Your task to perform on an android device: move a message to another label in the gmail app Image 0: 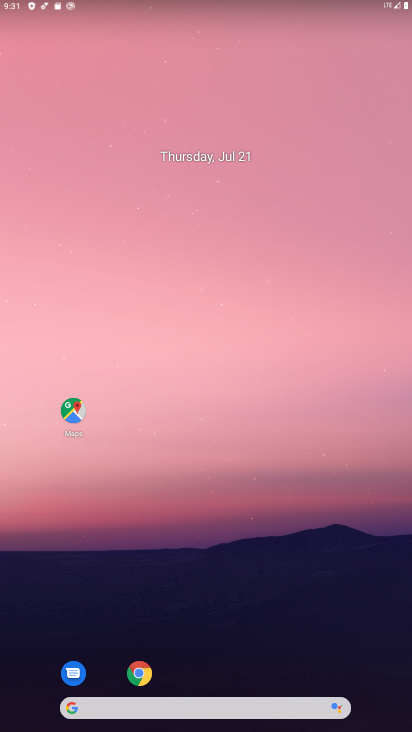
Step 0: drag from (195, 655) to (218, 30)
Your task to perform on an android device: move a message to another label in the gmail app Image 1: 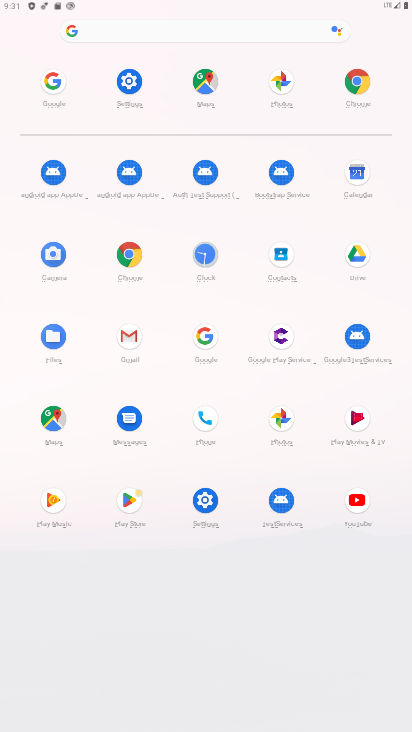
Step 1: click (123, 349)
Your task to perform on an android device: move a message to another label in the gmail app Image 2: 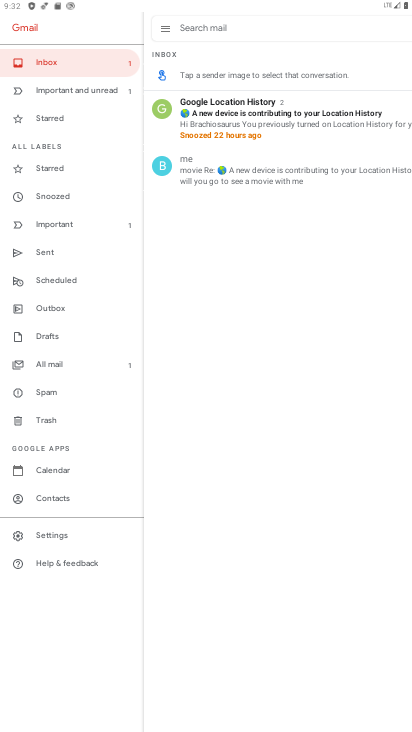
Step 2: click (285, 383)
Your task to perform on an android device: move a message to another label in the gmail app Image 3: 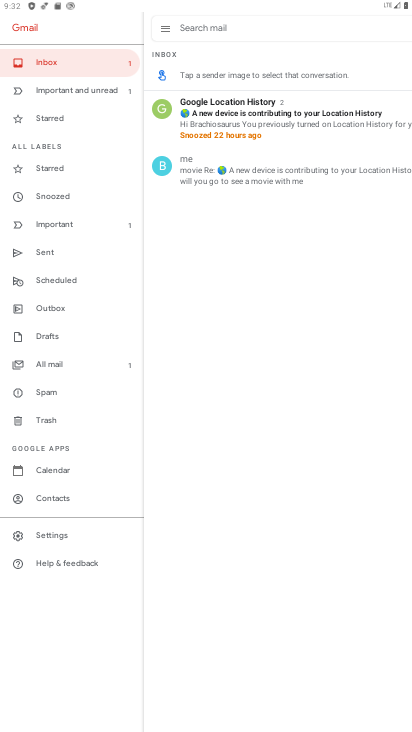
Step 3: click (231, 115)
Your task to perform on an android device: move a message to another label in the gmail app Image 4: 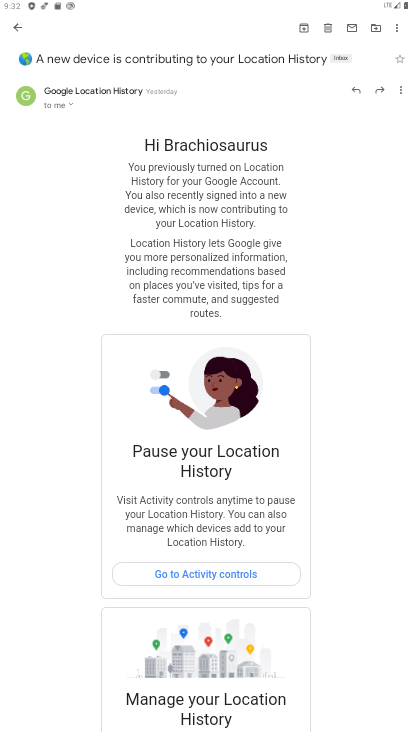
Step 4: click (402, 54)
Your task to perform on an android device: move a message to another label in the gmail app Image 5: 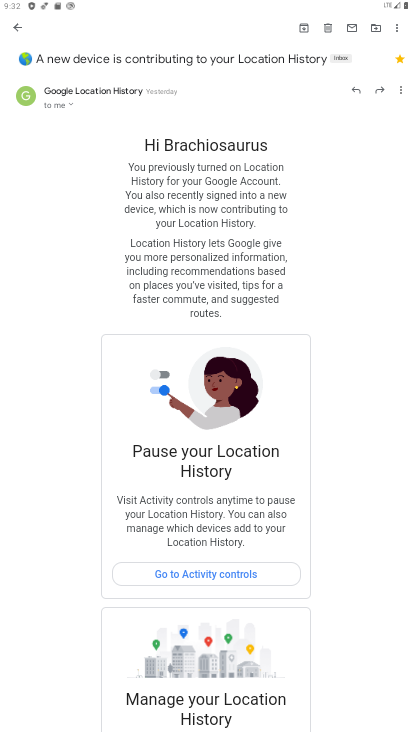
Step 5: task complete